Your task to perform on an android device: open chrome privacy settings Image 0: 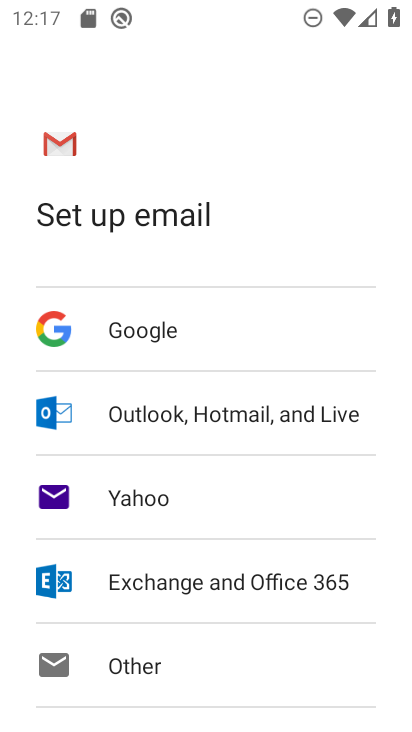
Step 0: press home button
Your task to perform on an android device: open chrome privacy settings Image 1: 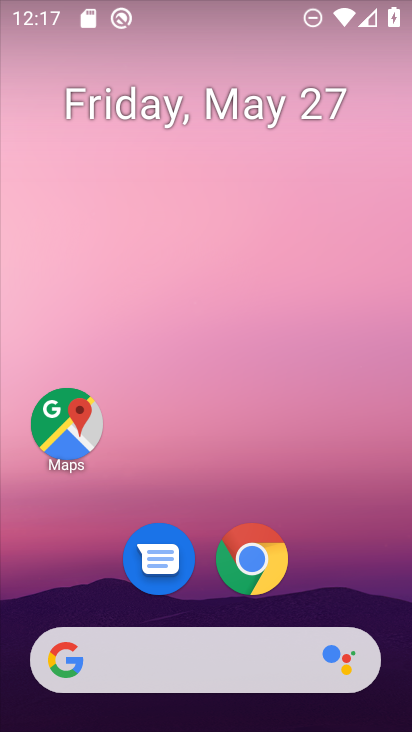
Step 1: click (249, 581)
Your task to perform on an android device: open chrome privacy settings Image 2: 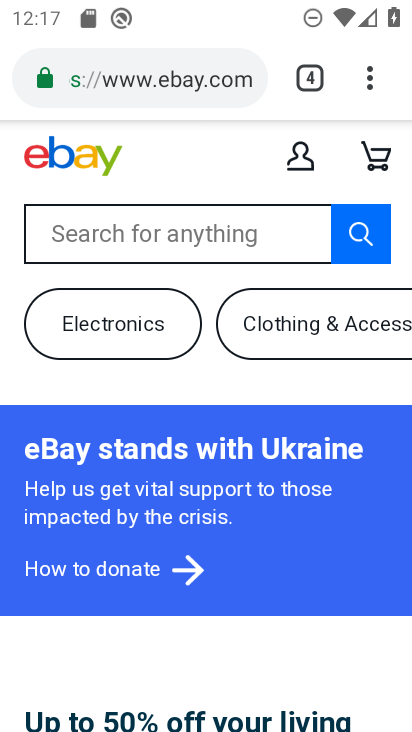
Step 2: click (369, 77)
Your task to perform on an android device: open chrome privacy settings Image 3: 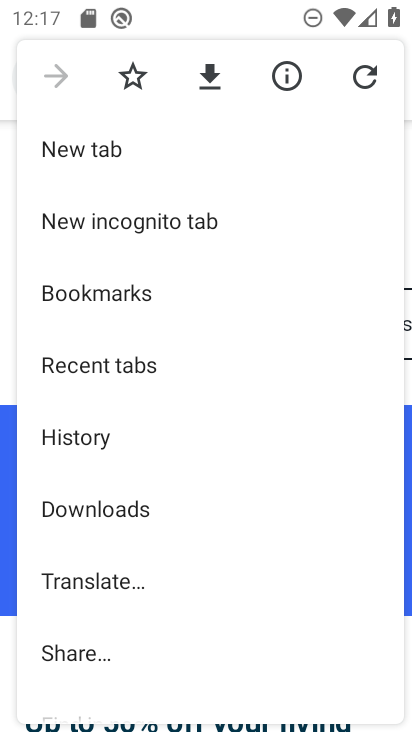
Step 3: drag from (121, 576) to (371, 74)
Your task to perform on an android device: open chrome privacy settings Image 4: 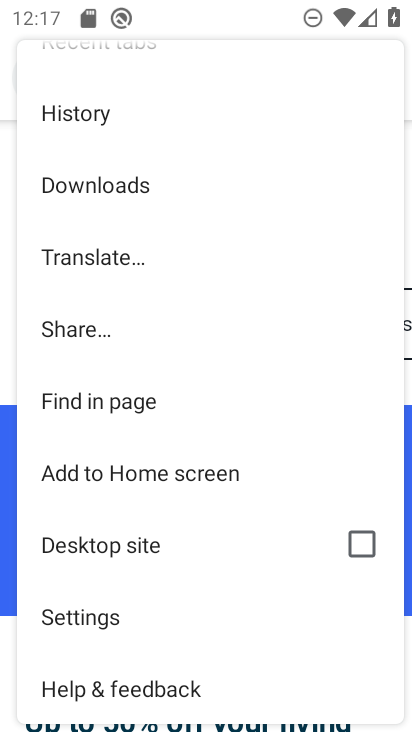
Step 4: click (75, 630)
Your task to perform on an android device: open chrome privacy settings Image 5: 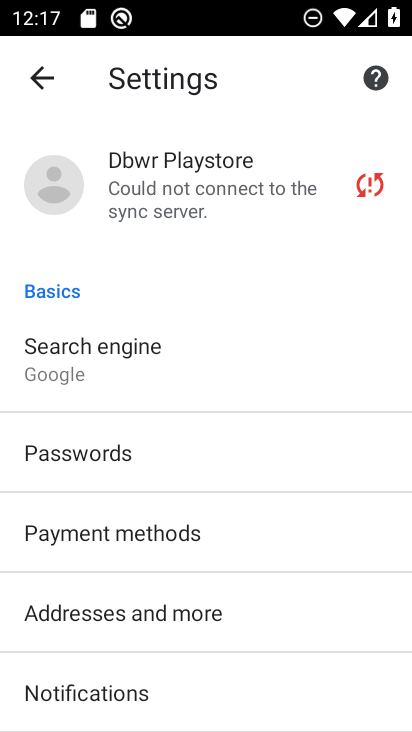
Step 5: drag from (92, 717) to (265, 318)
Your task to perform on an android device: open chrome privacy settings Image 6: 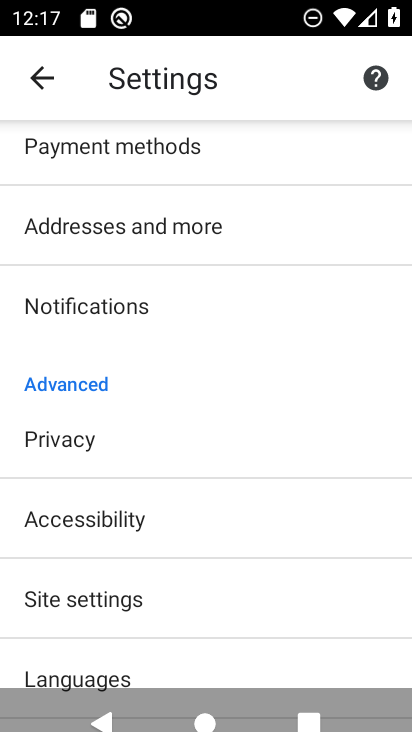
Step 6: click (86, 438)
Your task to perform on an android device: open chrome privacy settings Image 7: 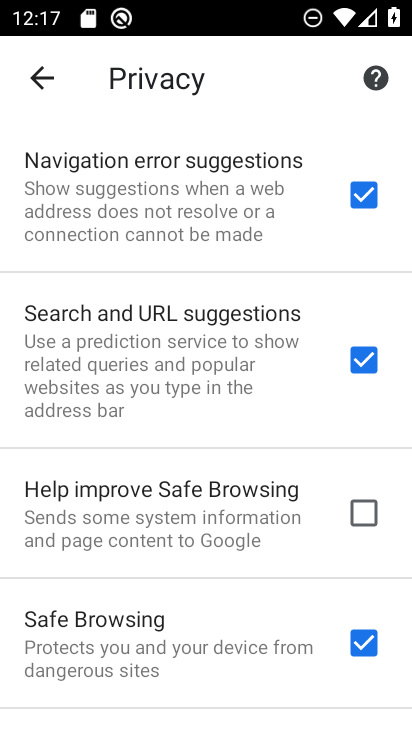
Step 7: task complete